Your task to perform on an android device: toggle airplane mode Image 0: 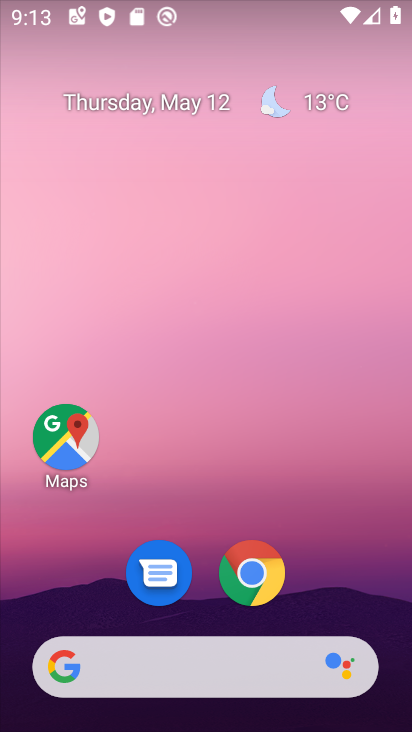
Step 0: click (396, 319)
Your task to perform on an android device: toggle airplane mode Image 1: 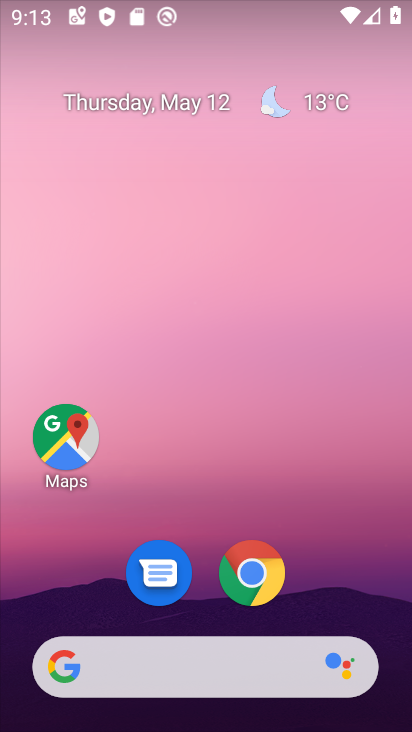
Step 1: drag from (399, 611) to (374, 280)
Your task to perform on an android device: toggle airplane mode Image 2: 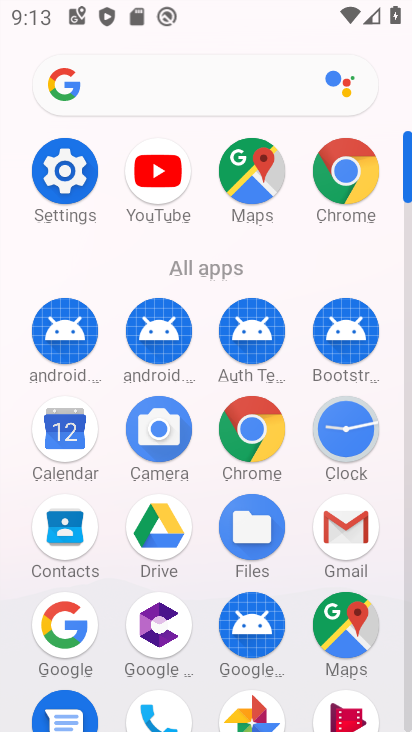
Step 2: click (71, 176)
Your task to perform on an android device: toggle airplane mode Image 3: 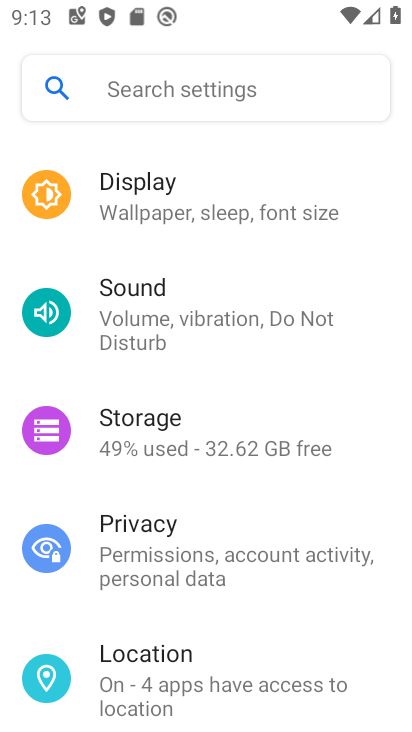
Step 3: drag from (375, 277) to (390, 494)
Your task to perform on an android device: toggle airplane mode Image 4: 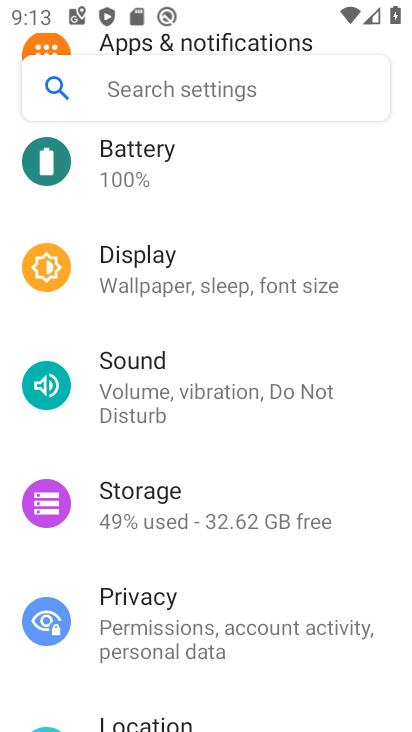
Step 4: drag from (327, 170) to (337, 384)
Your task to perform on an android device: toggle airplane mode Image 5: 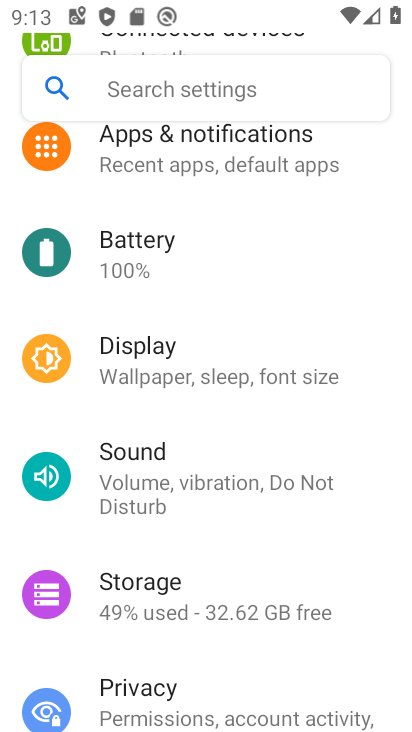
Step 5: drag from (390, 199) to (387, 539)
Your task to perform on an android device: toggle airplane mode Image 6: 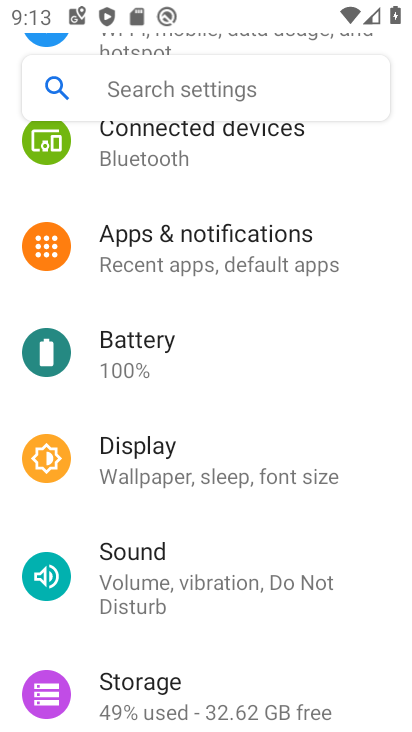
Step 6: drag from (364, 207) to (375, 468)
Your task to perform on an android device: toggle airplane mode Image 7: 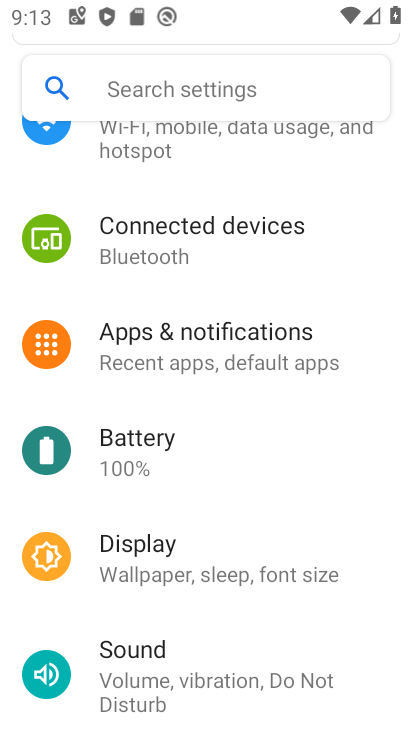
Step 7: click (150, 145)
Your task to perform on an android device: toggle airplane mode Image 8: 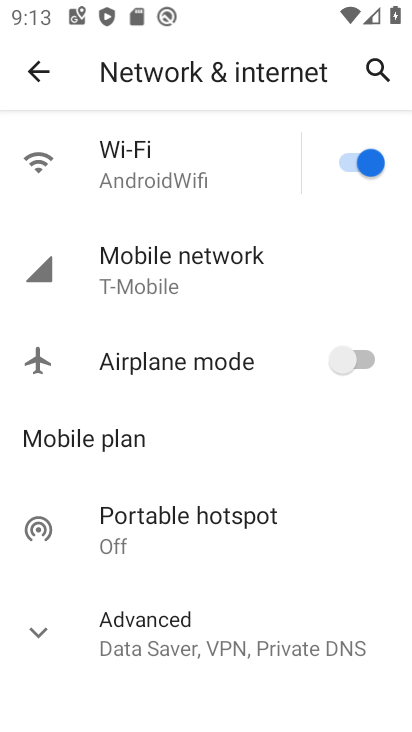
Step 8: click (362, 359)
Your task to perform on an android device: toggle airplane mode Image 9: 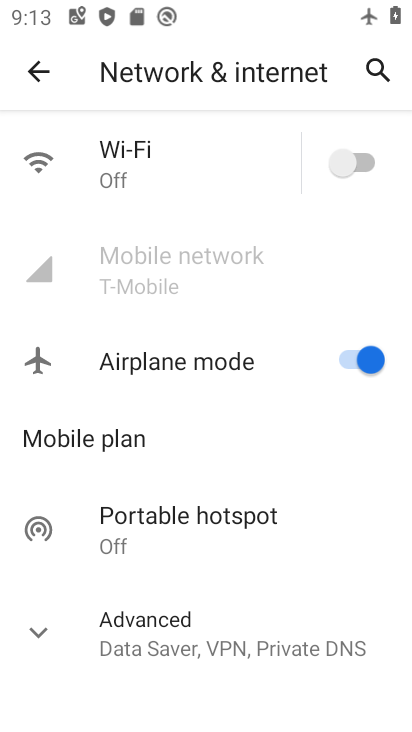
Step 9: task complete